Your task to perform on an android device: Open calendar and show me the third week of next month Image 0: 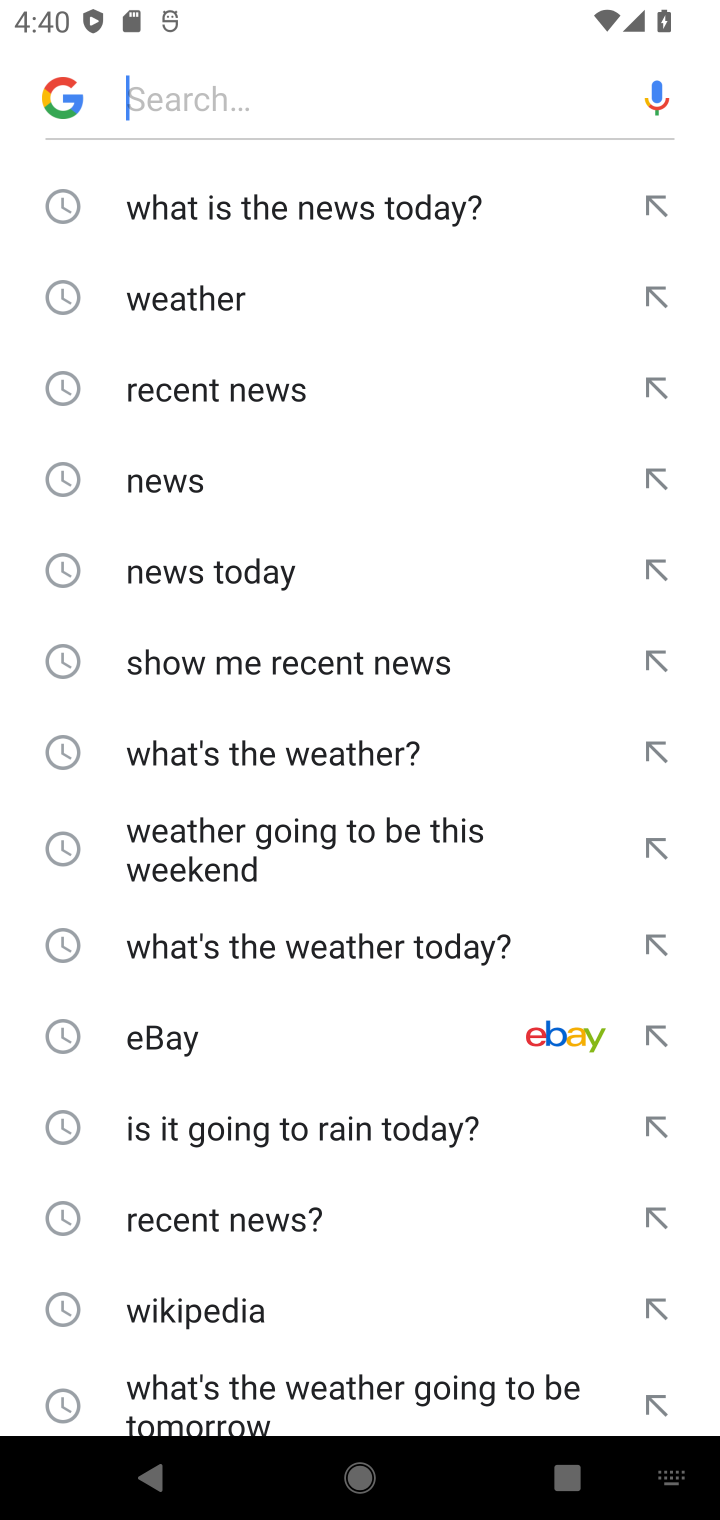
Step 0: press home button
Your task to perform on an android device: Open calendar and show me the third week of next month Image 1: 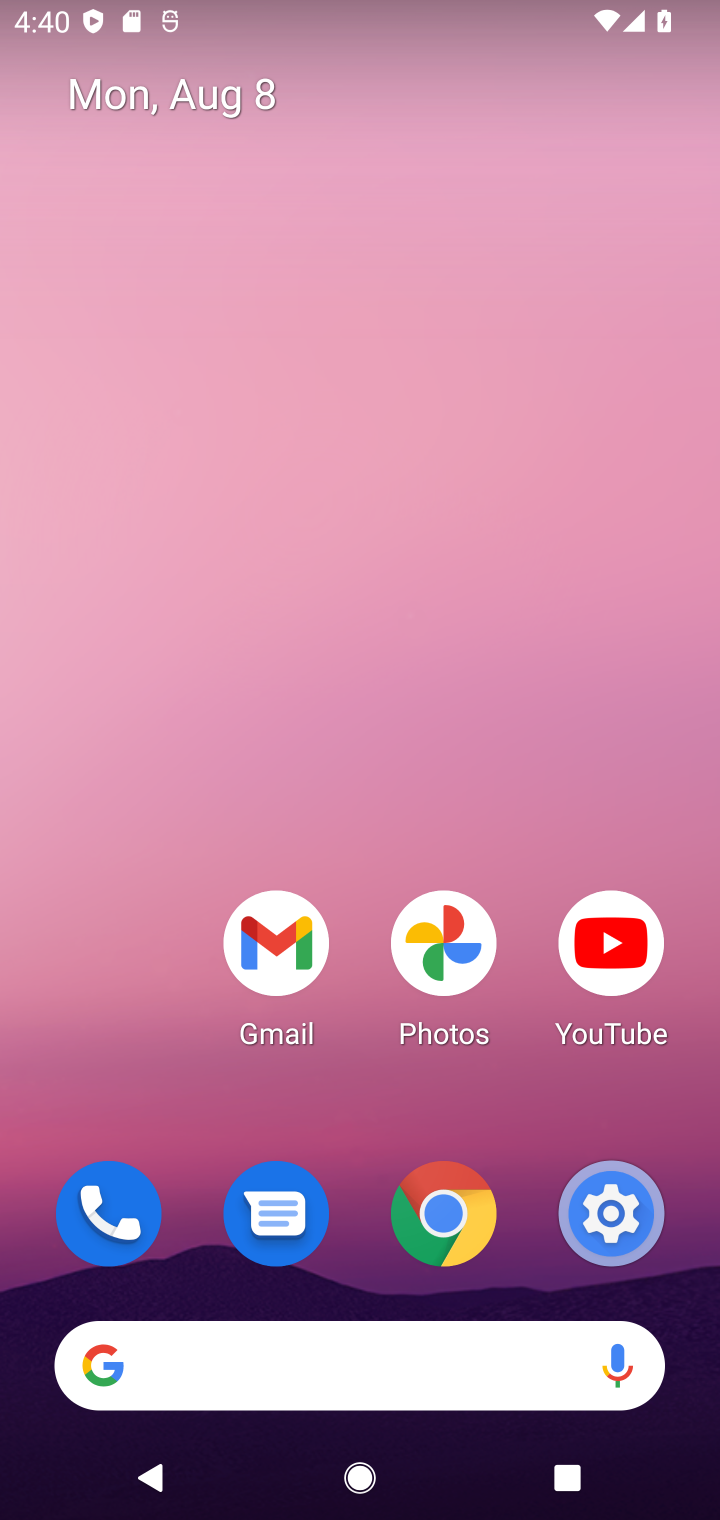
Step 1: drag from (330, 1137) to (306, 267)
Your task to perform on an android device: Open calendar and show me the third week of next month Image 2: 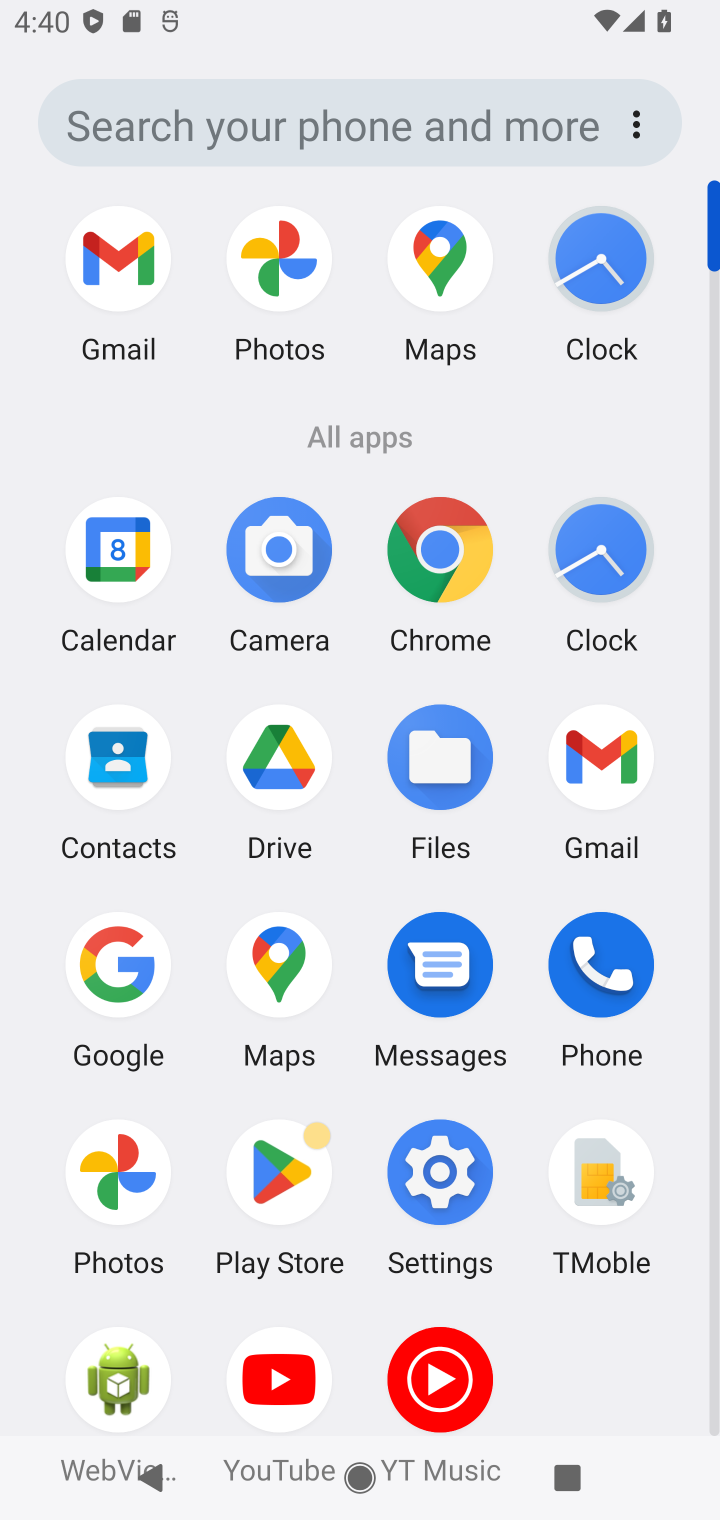
Step 2: click (100, 566)
Your task to perform on an android device: Open calendar and show me the third week of next month Image 3: 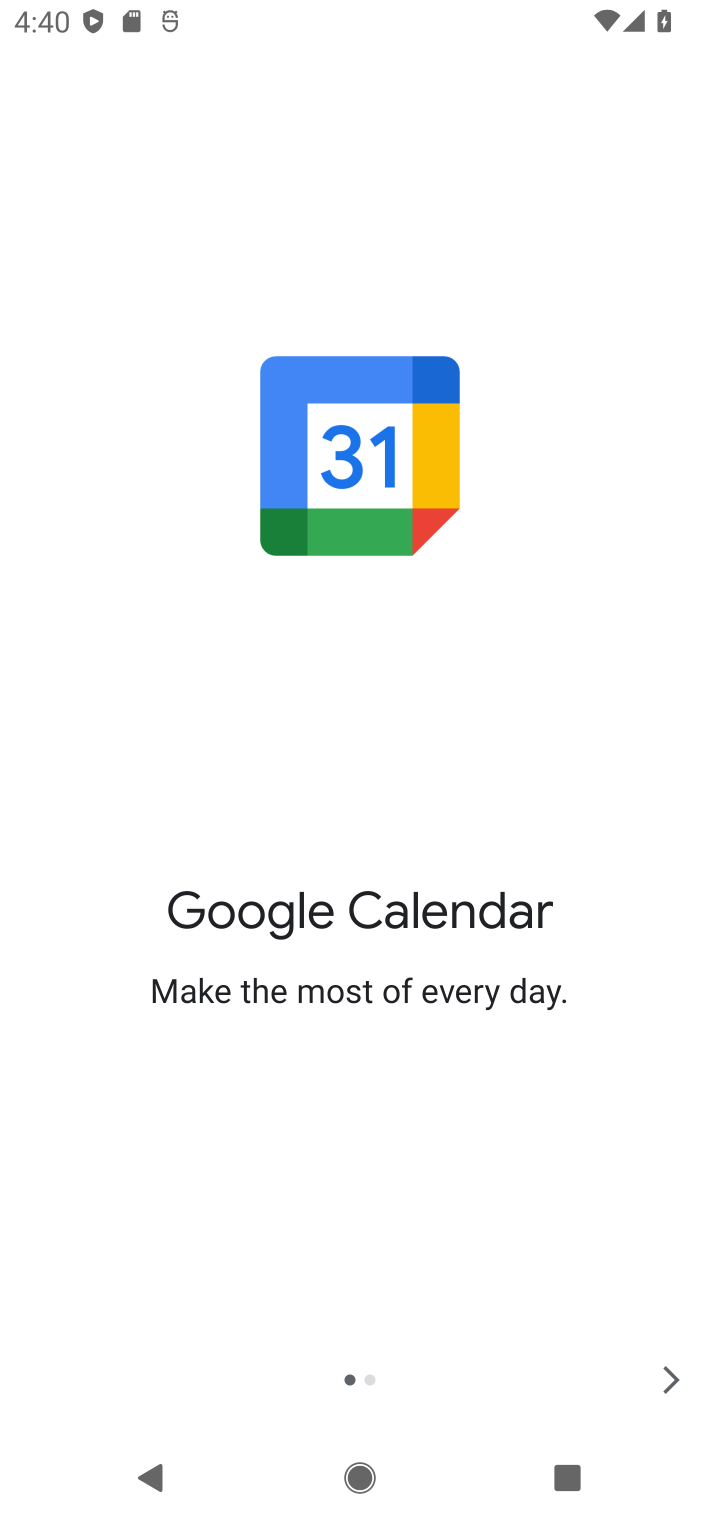
Step 3: click (685, 1402)
Your task to perform on an android device: Open calendar and show me the third week of next month Image 4: 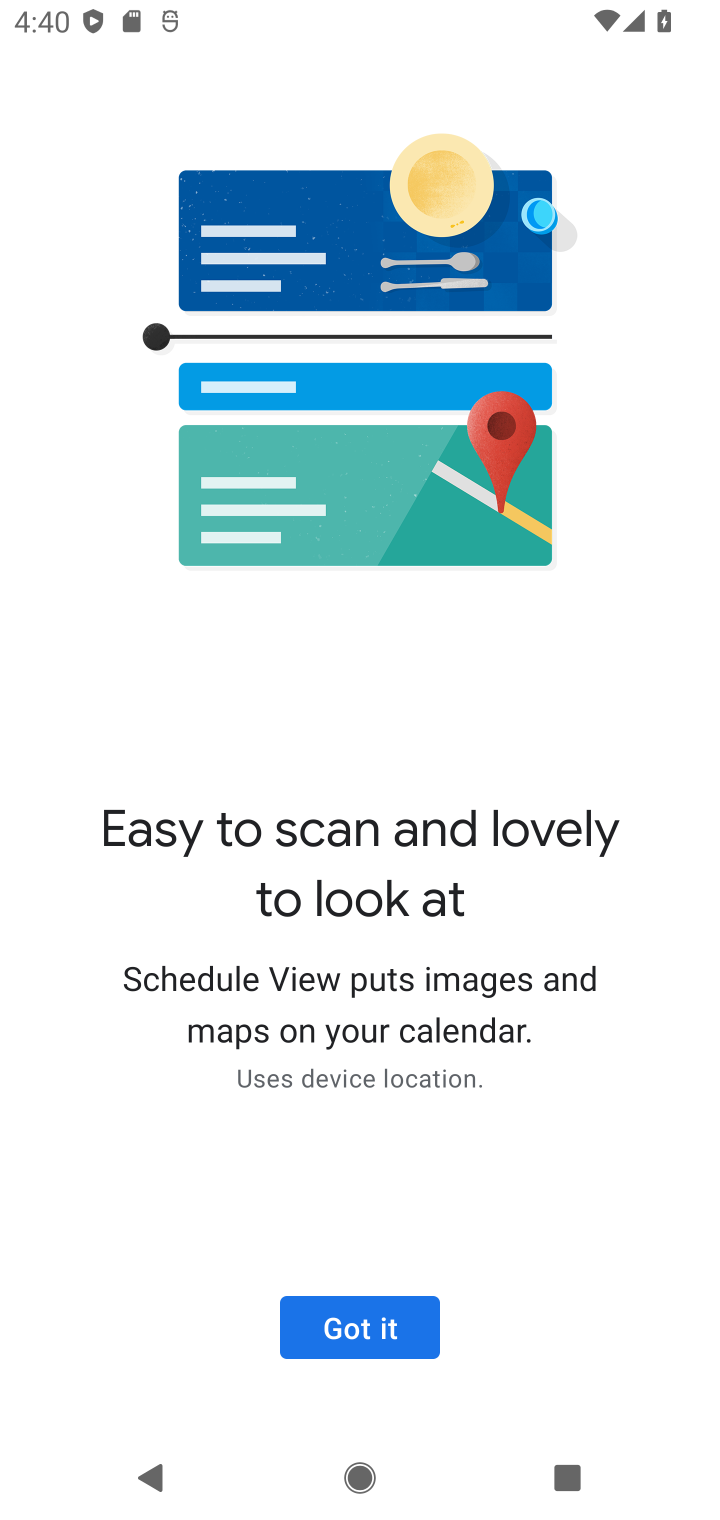
Step 4: click (366, 1323)
Your task to perform on an android device: Open calendar and show me the third week of next month Image 5: 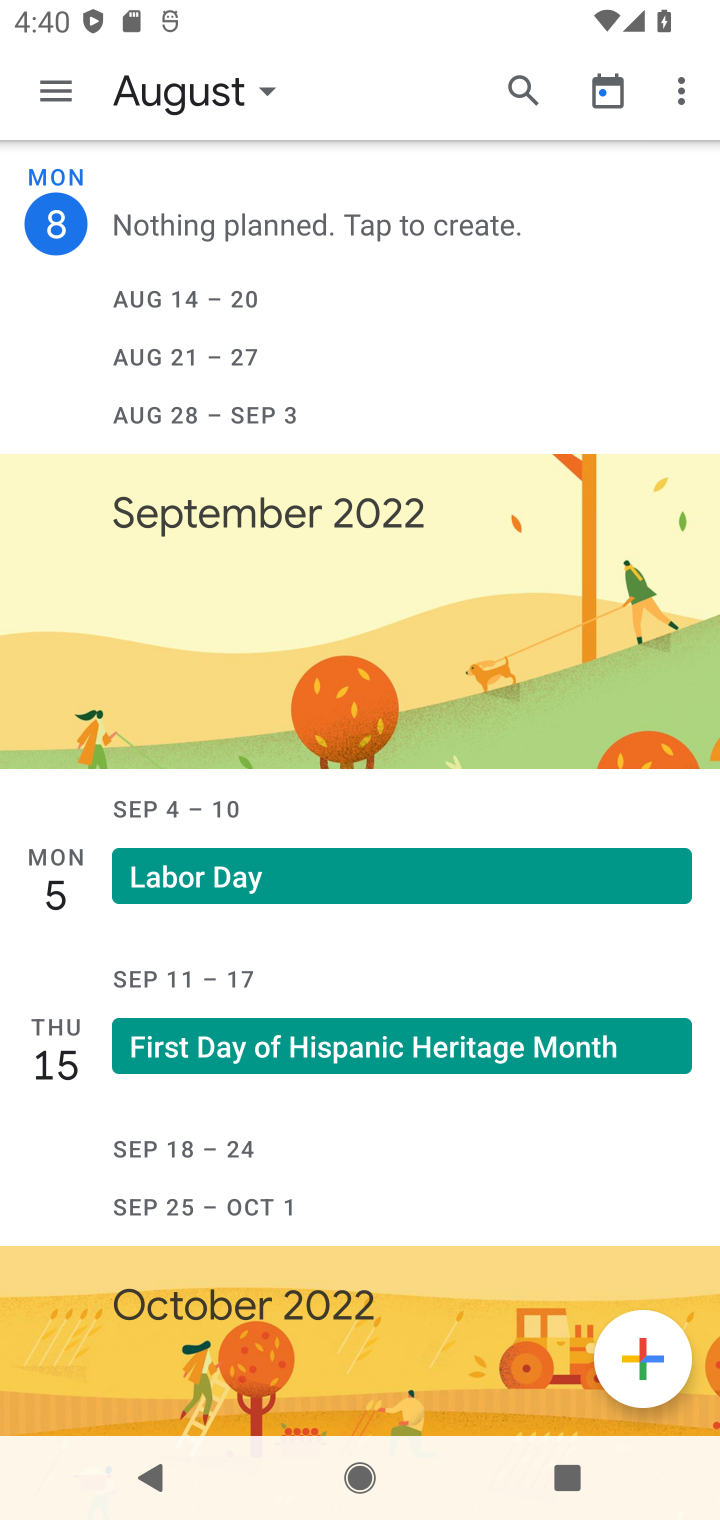
Step 5: click (243, 104)
Your task to perform on an android device: Open calendar and show me the third week of next month Image 6: 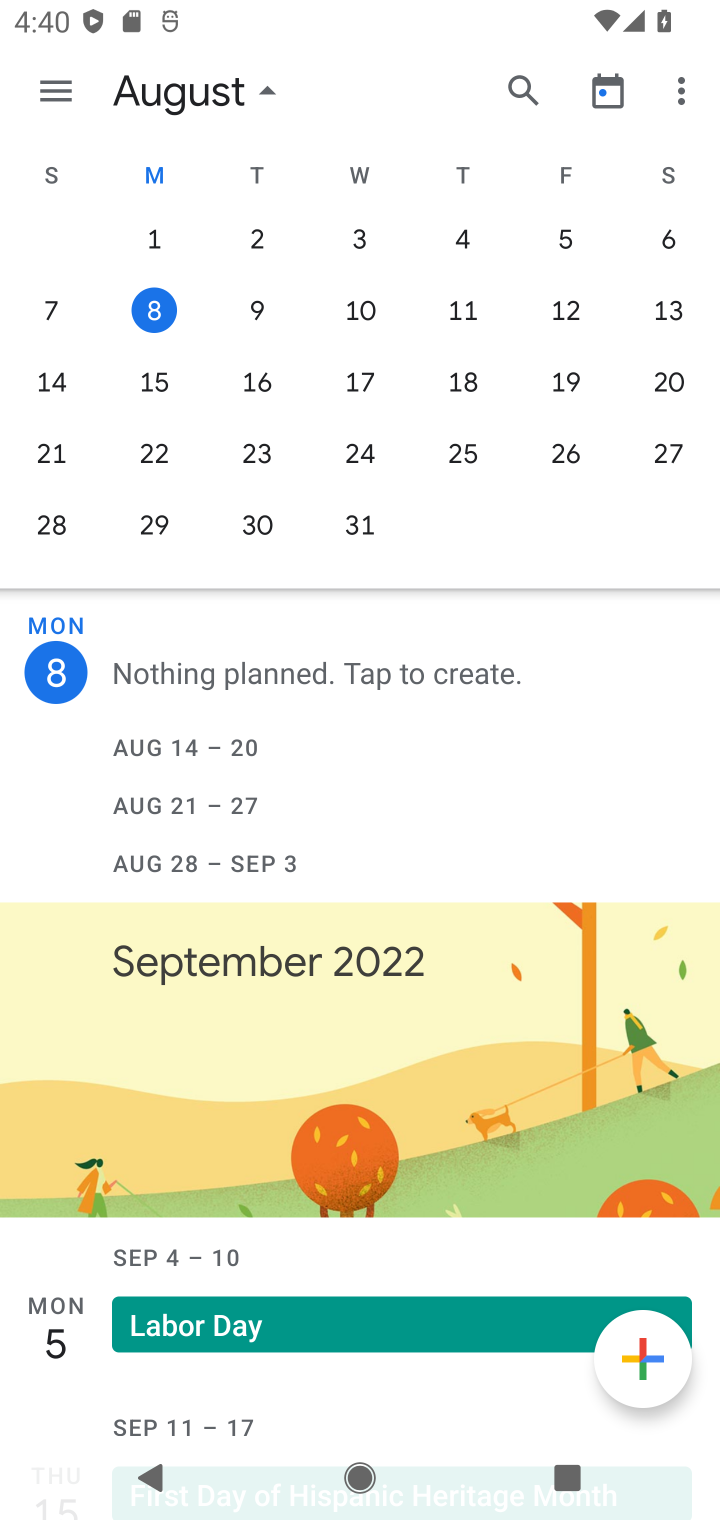
Step 6: drag from (664, 319) to (120, 223)
Your task to perform on an android device: Open calendar and show me the third week of next month Image 7: 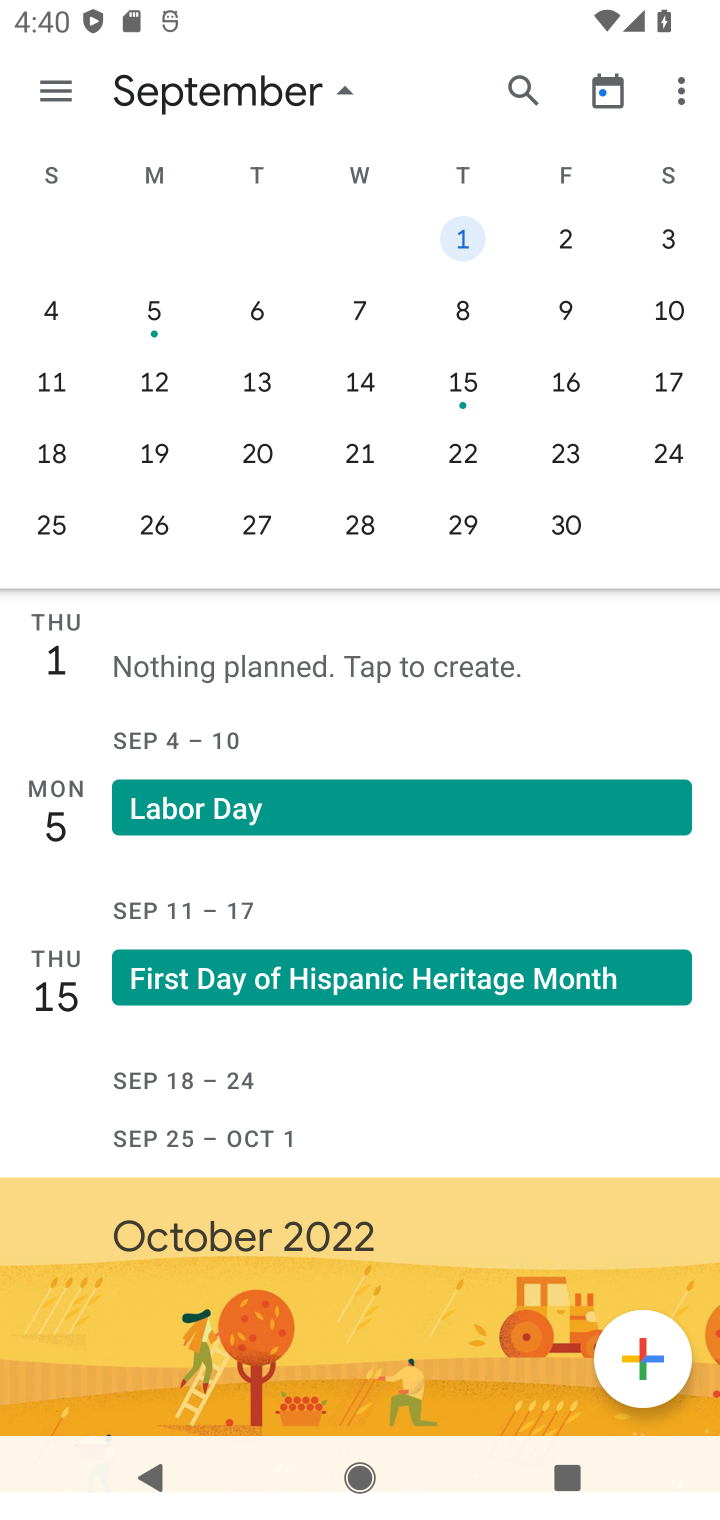
Step 7: click (52, 392)
Your task to perform on an android device: Open calendar and show me the third week of next month Image 8: 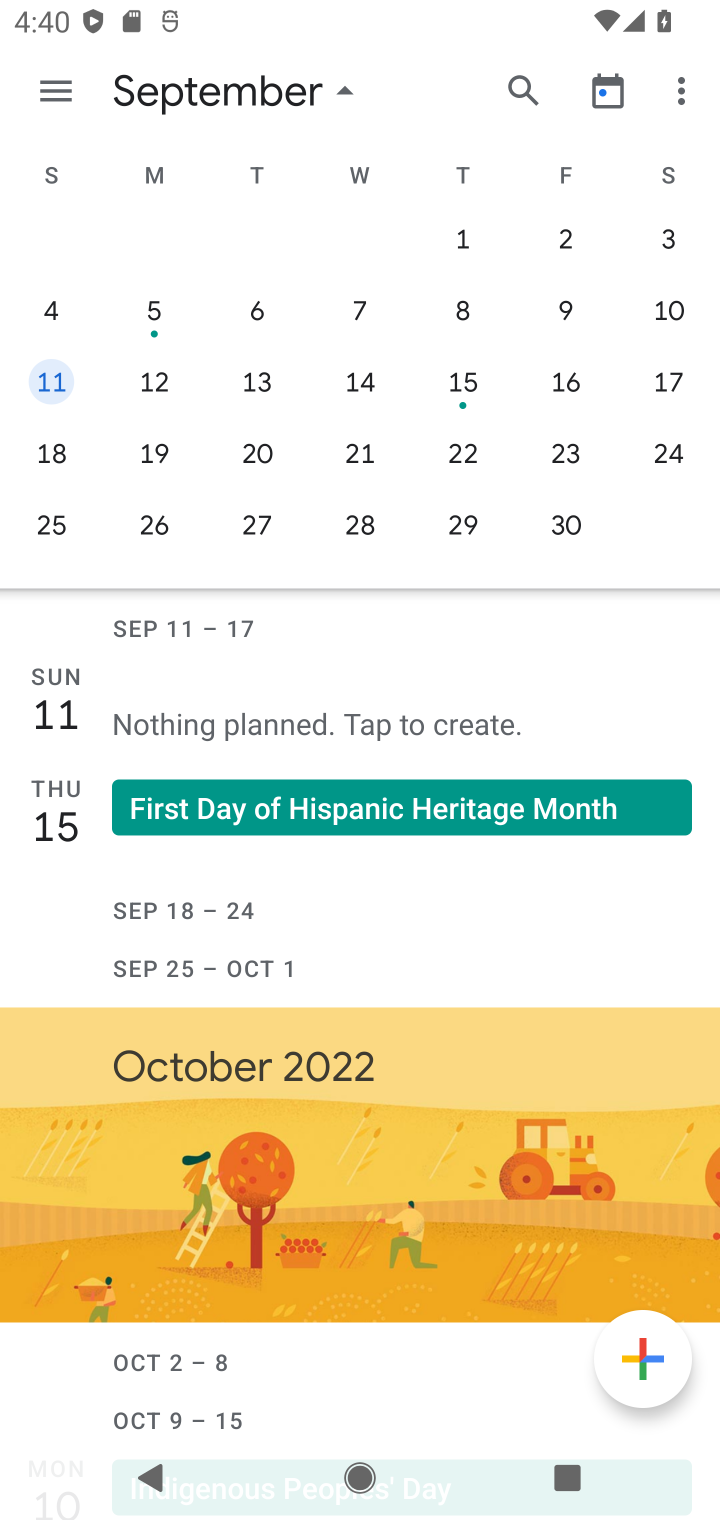
Step 8: task complete